Your task to perform on an android device: toggle translation in the chrome app Image 0: 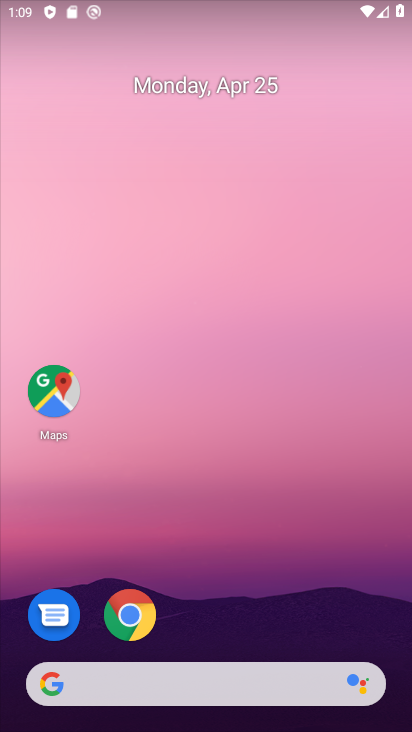
Step 0: click (130, 614)
Your task to perform on an android device: toggle translation in the chrome app Image 1: 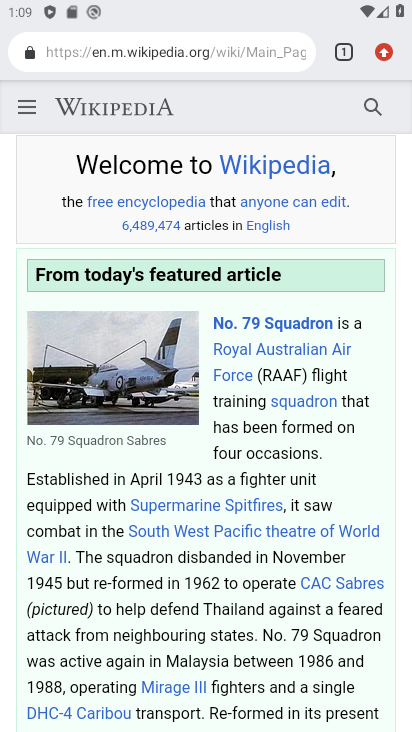
Step 1: click (383, 50)
Your task to perform on an android device: toggle translation in the chrome app Image 2: 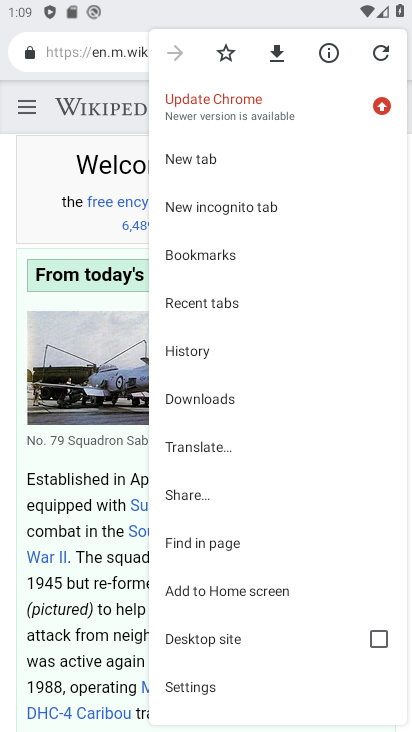
Step 2: click (210, 689)
Your task to perform on an android device: toggle translation in the chrome app Image 3: 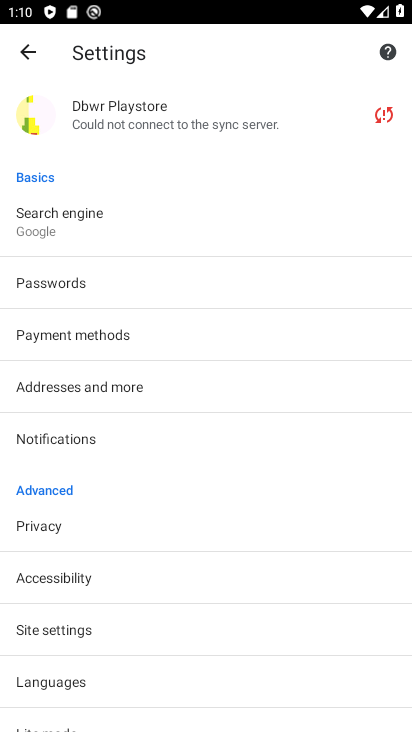
Step 3: click (56, 680)
Your task to perform on an android device: toggle translation in the chrome app Image 4: 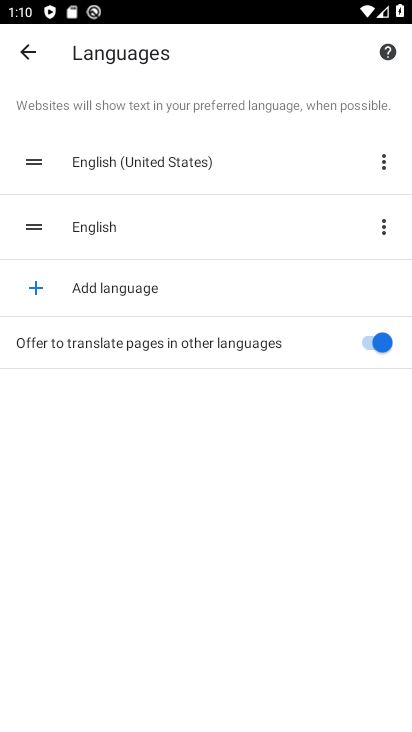
Step 4: click (384, 337)
Your task to perform on an android device: toggle translation in the chrome app Image 5: 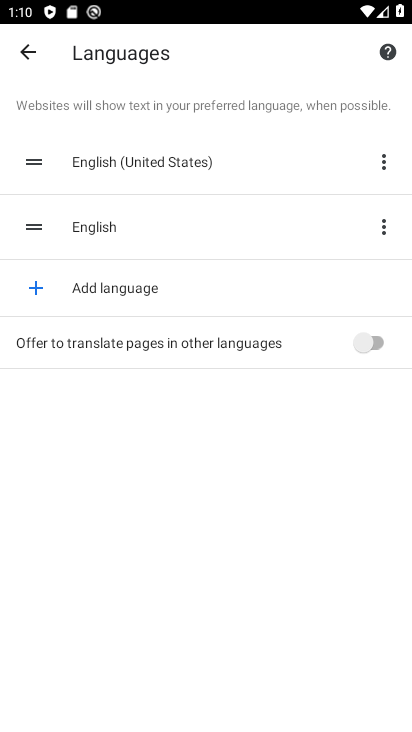
Step 5: task complete